Your task to perform on an android device: change the clock display to show seconds Image 0: 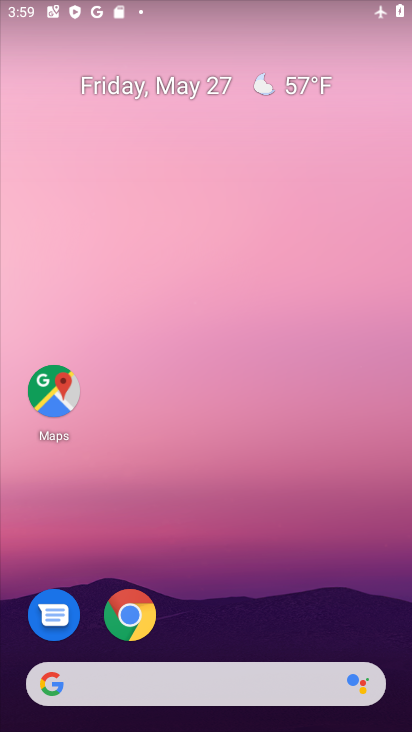
Step 0: drag from (229, 622) to (224, 38)
Your task to perform on an android device: change the clock display to show seconds Image 1: 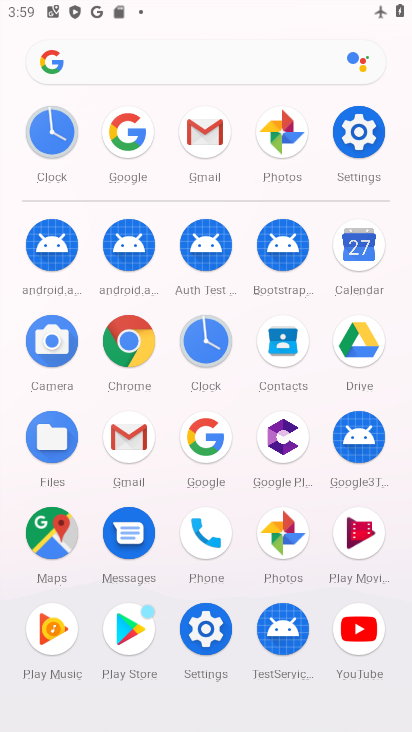
Step 1: click (189, 335)
Your task to perform on an android device: change the clock display to show seconds Image 2: 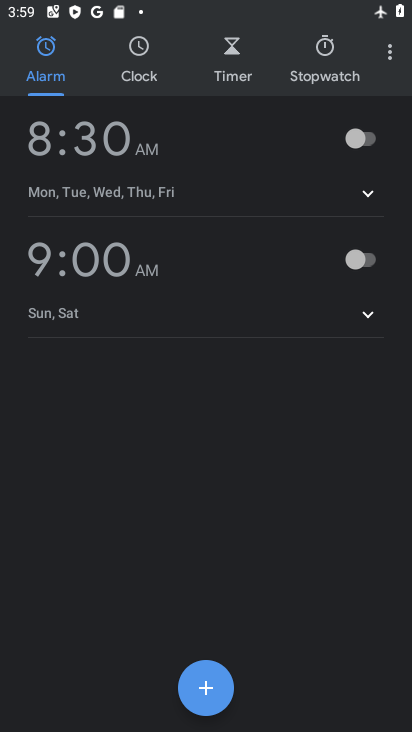
Step 2: click (387, 65)
Your task to perform on an android device: change the clock display to show seconds Image 3: 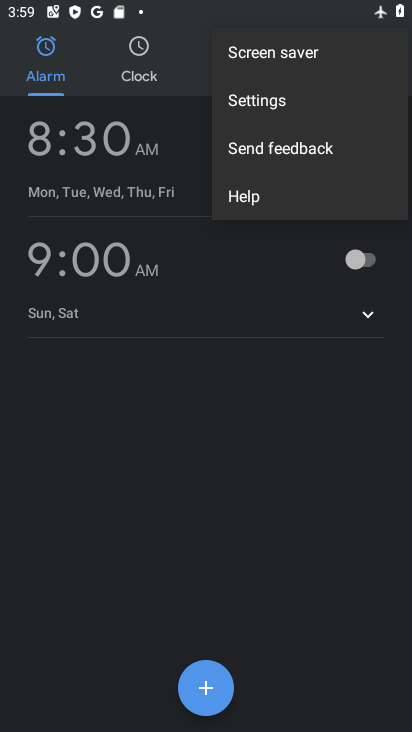
Step 3: click (272, 116)
Your task to perform on an android device: change the clock display to show seconds Image 4: 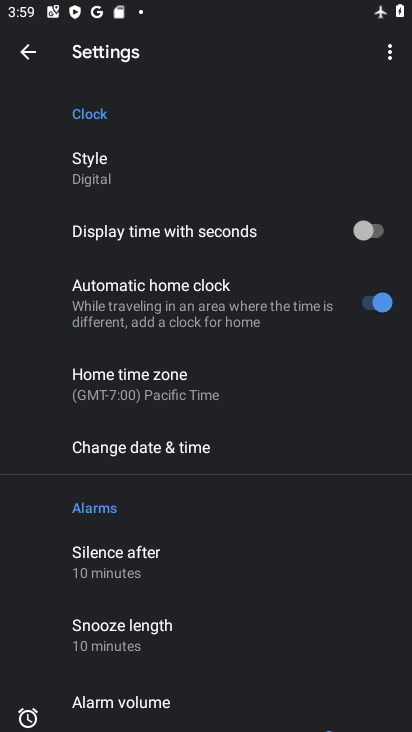
Step 4: click (386, 239)
Your task to perform on an android device: change the clock display to show seconds Image 5: 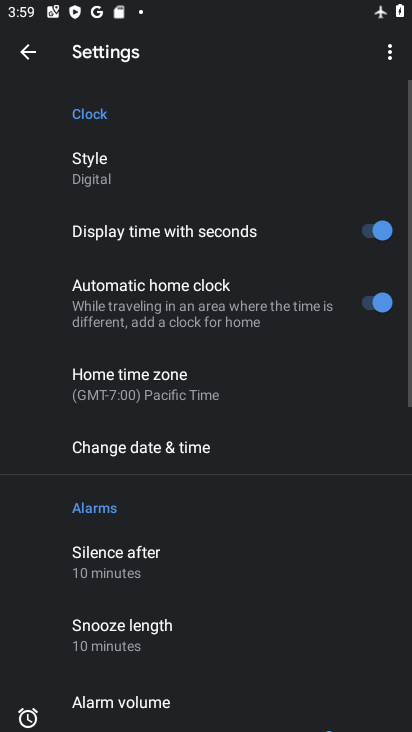
Step 5: task complete